Your task to perform on an android device: What's the weather? Image 0: 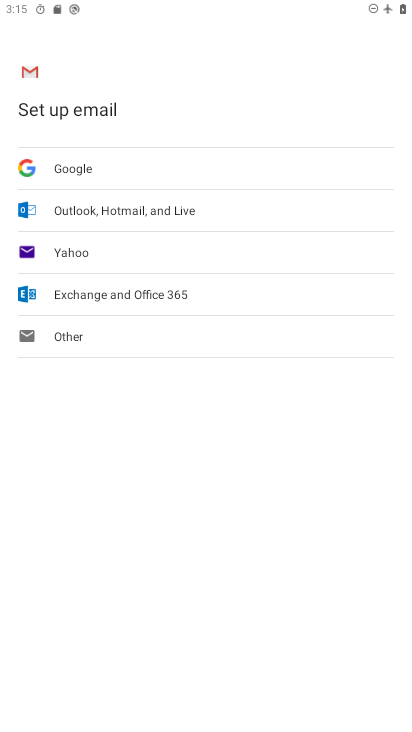
Step 0: press home button
Your task to perform on an android device: What's the weather? Image 1: 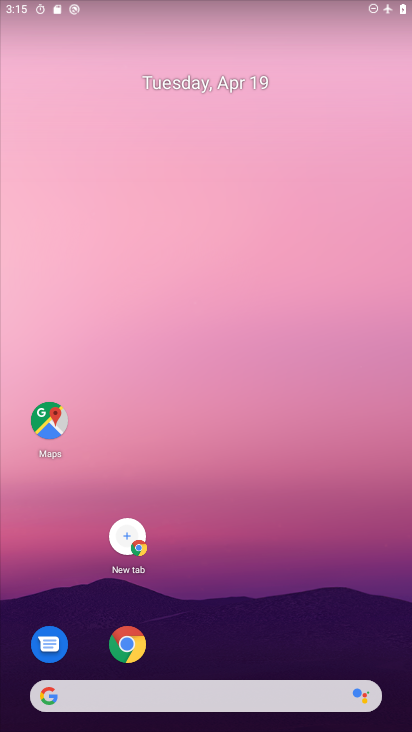
Step 1: click (134, 646)
Your task to perform on an android device: What's the weather? Image 2: 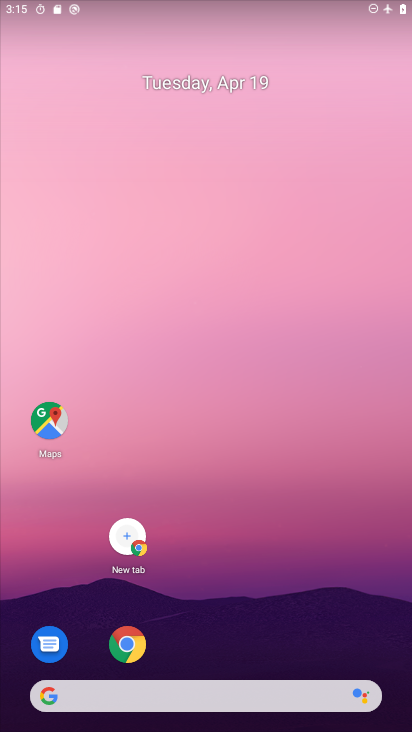
Step 2: click (134, 646)
Your task to perform on an android device: What's the weather? Image 3: 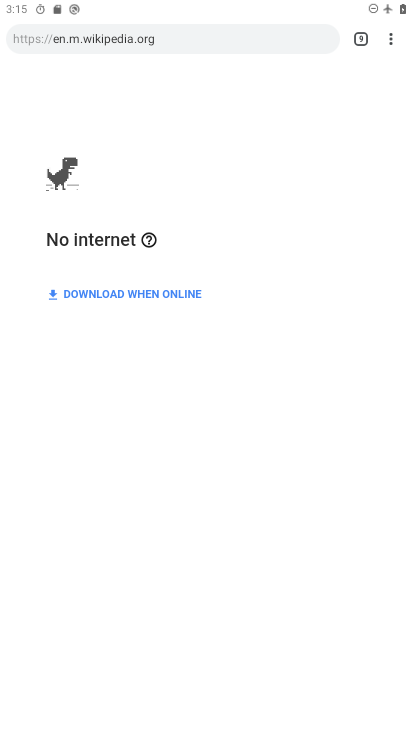
Step 3: click (368, 30)
Your task to perform on an android device: What's the weather? Image 4: 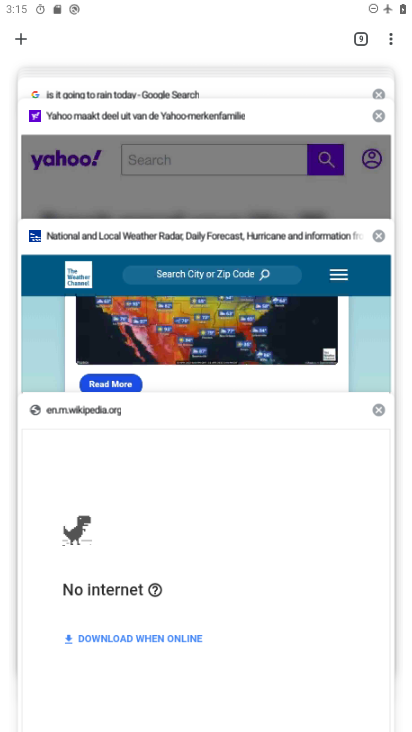
Step 4: drag from (126, 184) to (108, 554)
Your task to perform on an android device: What's the weather? Image 5: 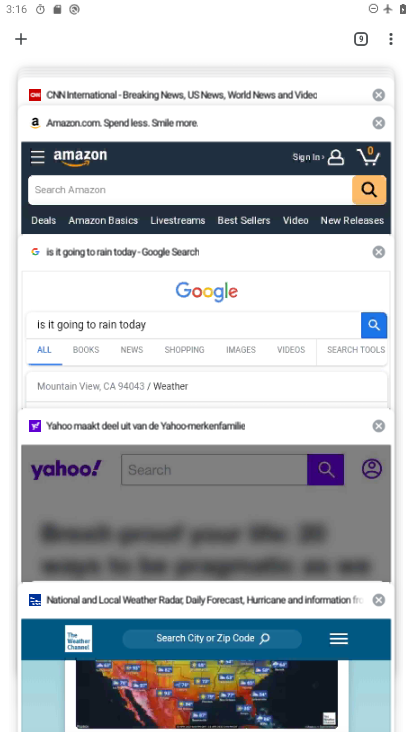
Step 5: drag from (94, 210) to (88, 605)
Your task to perform on an android device: What's the weather? Image 6: 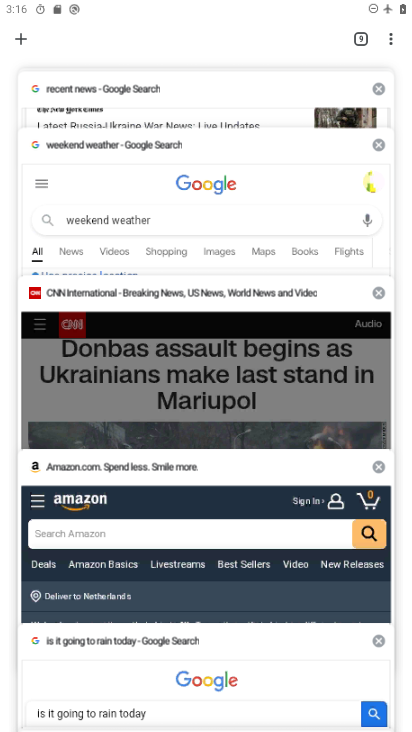
Step 6: drag from (82, 140) to (68, 504)
Your task to perform on an android device: What's the weather? Image 7: 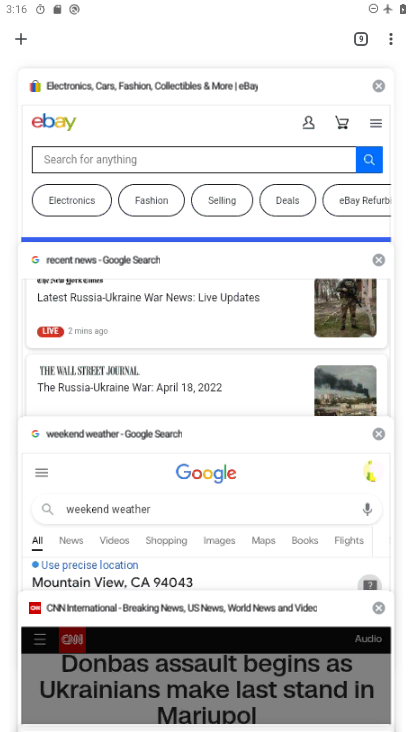
Step 7: drag from (92, 95) to (55, 117)
Your task to perform on an android device: What's the weather? Image 8: 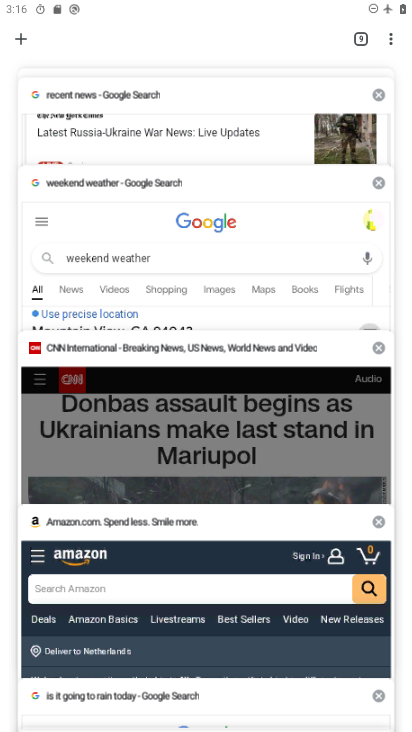
Step 8: click (16, 39)
Your task to perform on an android device: What's the weather? Image 9: 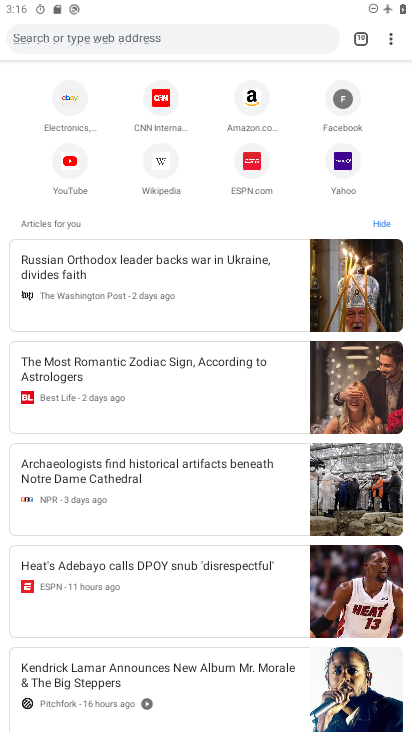
Step 9: click (102, 45)
Your task to perform on an android device: What's the weather? Image 10: 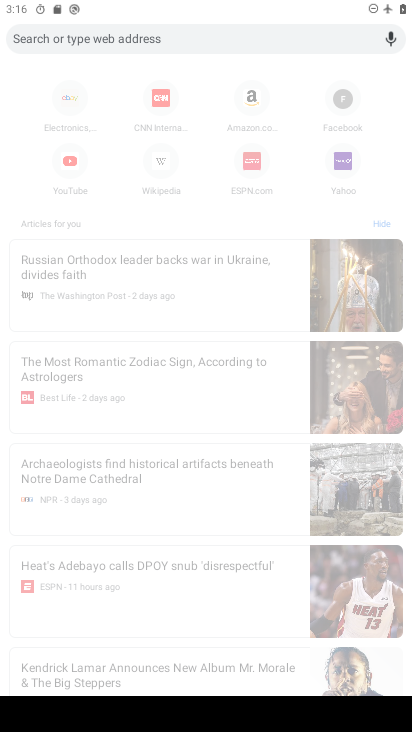
Step 10: type "what's the weather"
Your task to perform on an android device: What's the weather? Image 11: 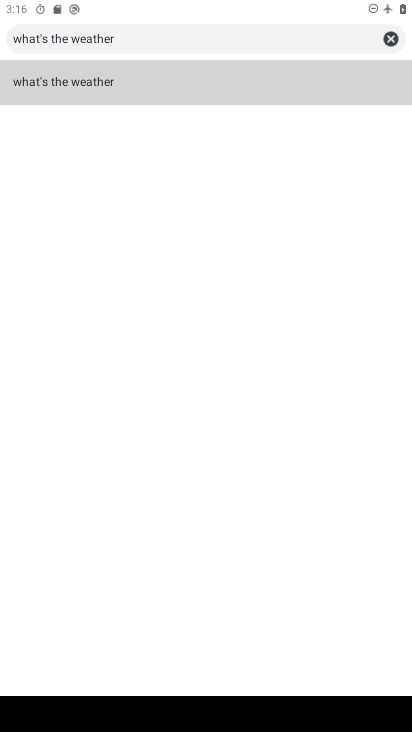
Step 11: click (72, 88)
Your task to perform on an android device: What's the weather? Image 12: 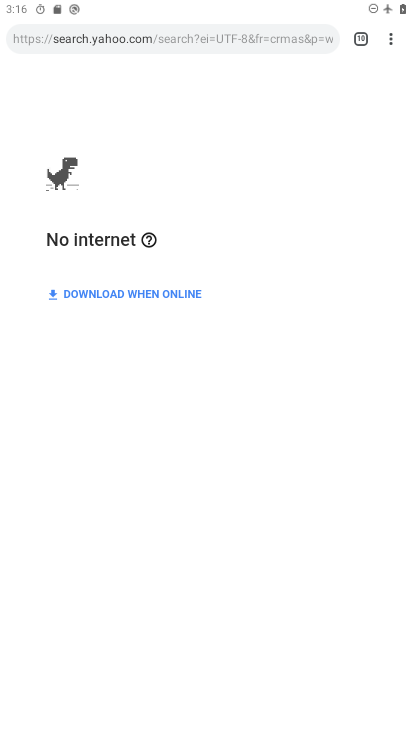
Step 12: task complete